Your task to perform on an android device: turn off smart reply in the gmail app Image 0: 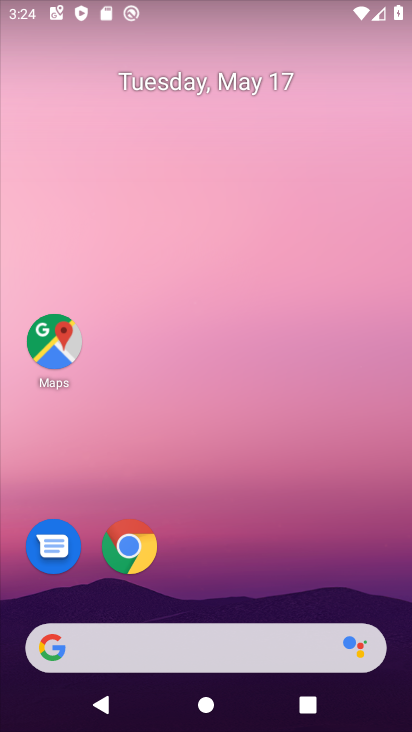
Step 0: drag from (194, 599) to (181, 289)
Your task to perform on an android device: turn off smart reply in the gmail app Image 1: 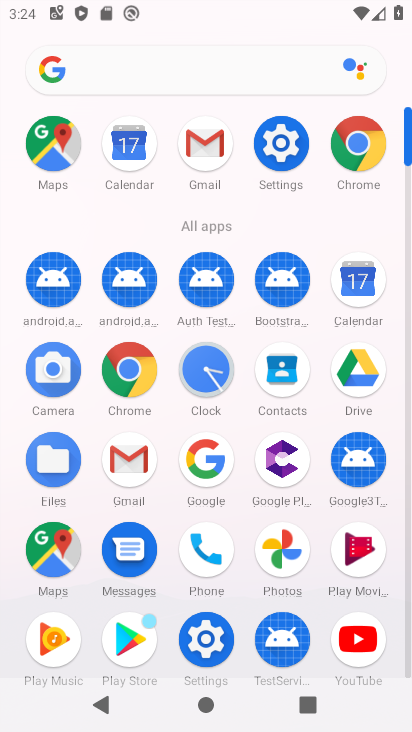
Step 1: click (207, 173)
Your task to perform on an android device: turn off smart reply in the gmail app Image 2: 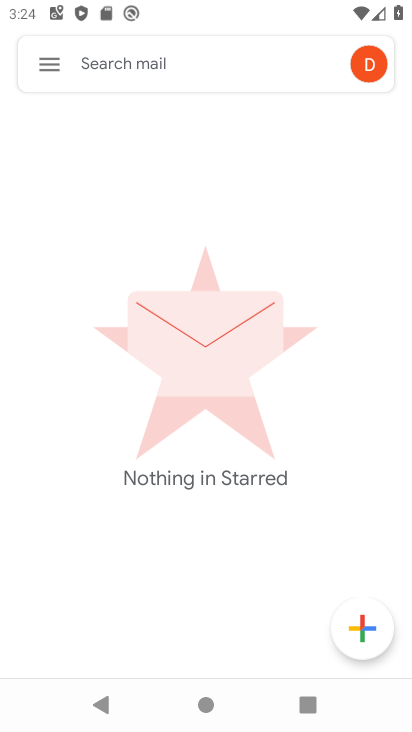
Step 2: click (39, 69)
Your task to perform on an android device: turn off smart reply in the gmail app Image 3: 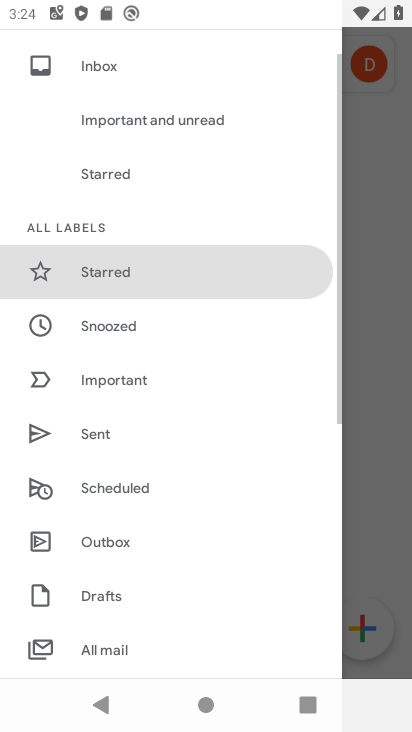
Step 3: drag from (124, 624) to (188, 139)
Your task to perform on an android device: turn off smart reply in the gmail app Image 4: 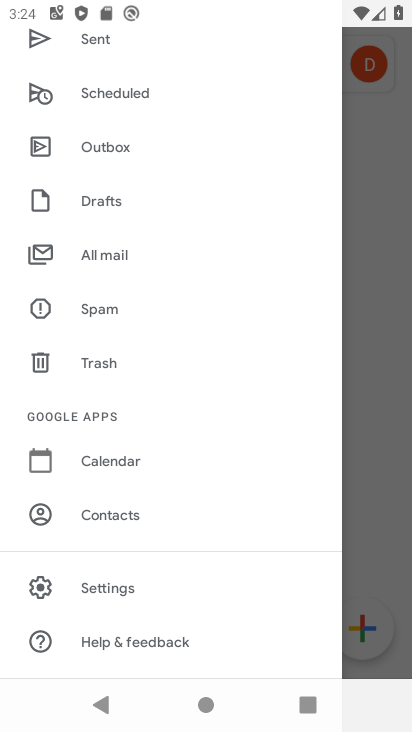
Step 4: drag from (128, 613) to (124, 411)
Your task to perform on an android device: turn off smart reply in the gmail app Image 5: 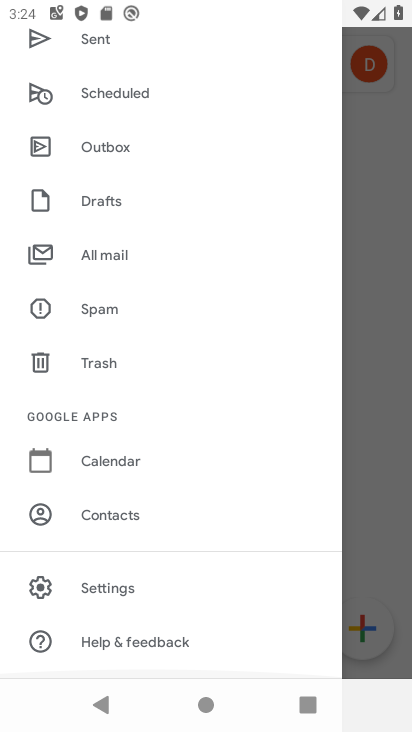
Step 5: click (100, 584)
Your task to perform on an android device: turn off smart reply in the gmail app Image 6: 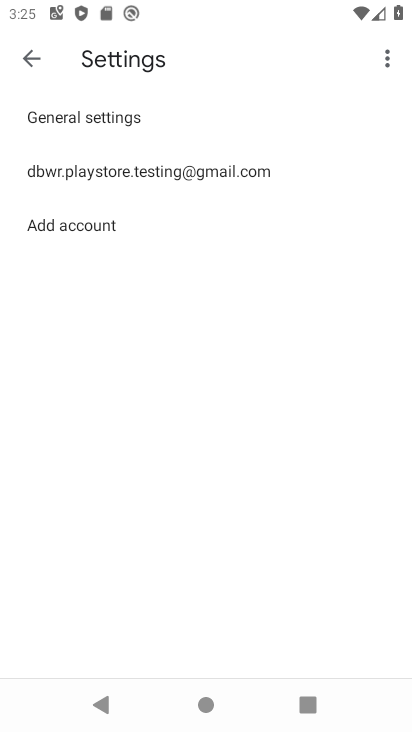
Step 6: click (189, 171)
Your task to perform on an android device: turn off smart reply in the gmail app Image 7: 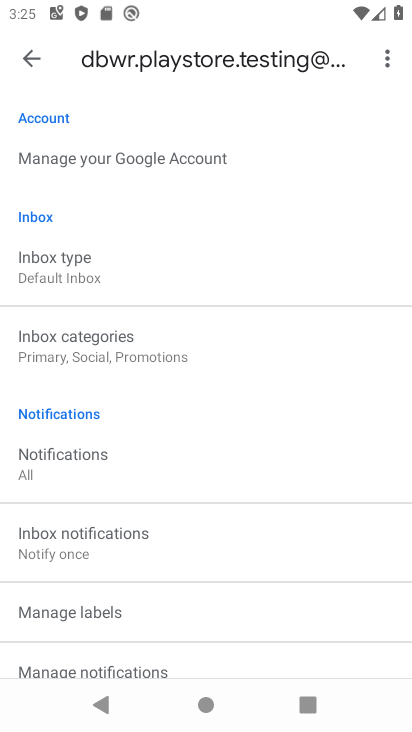
Step 7: drag from (99, 598) to (163, 227)
Your task to perform on an android device: turn off smart reply in the gmail app Image 8: 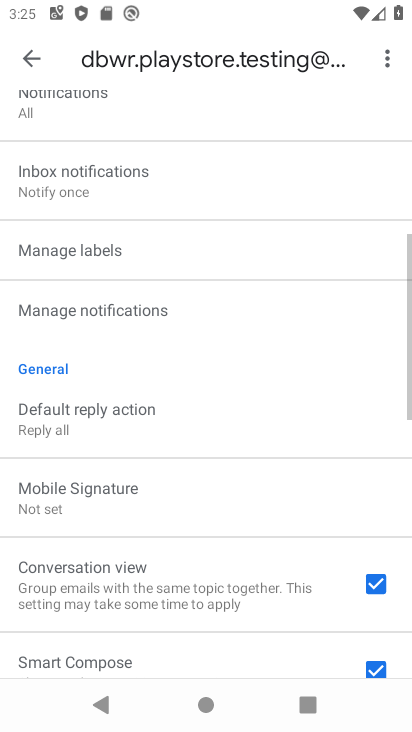
Step 8: drag from (205, 565) to (252, 252)
Your task to perform on an android device: turn off smart reply in the gmail app Image 9: 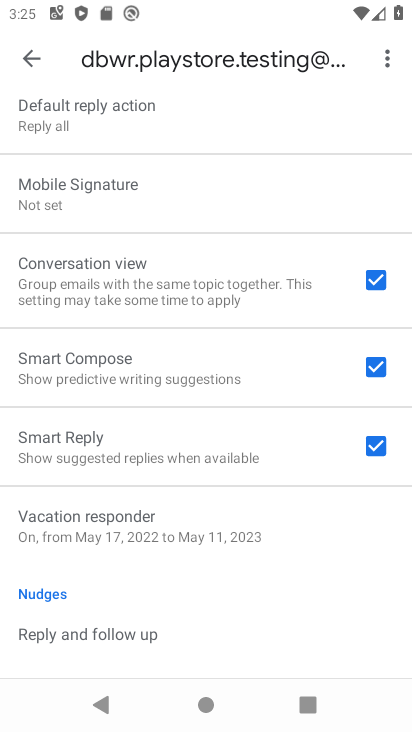
Step 9: click (378, 444)
Your task to perform on an android device: turn off smart reply in the gmail app Image 10: 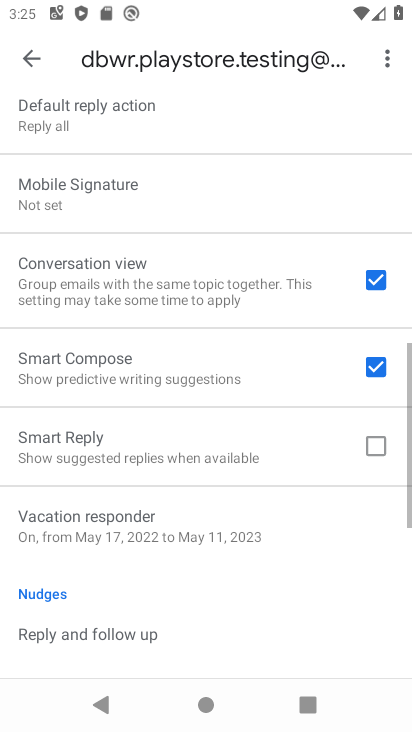
Step 10: task complete